Your task to perform on an android device: refresh tabs in the chrome app Image 0: 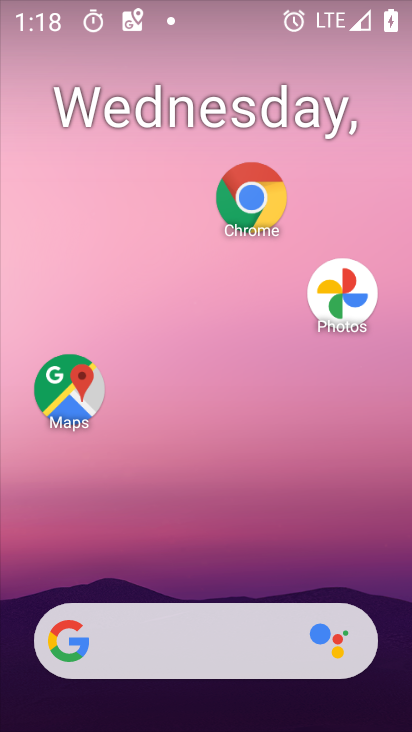
Step 0: drag from (298, 610) to (304, 131)
Your task to perform on an android device: refresh tabs in the chrome app Image 1: 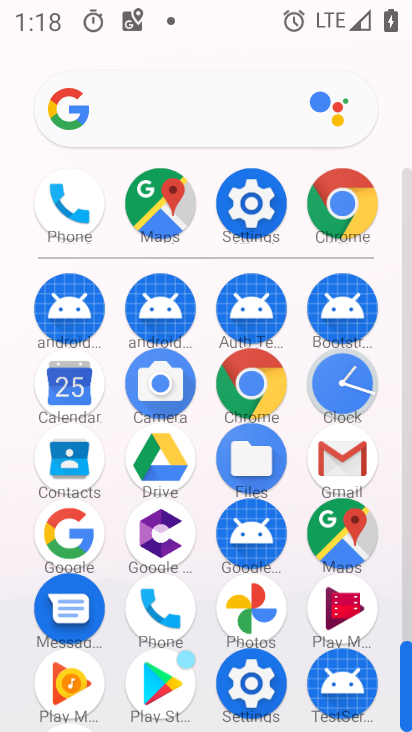
Step 1: click (276, 390)
Your task to perform on an android device: refresh tabs in the chrome app Image 2: 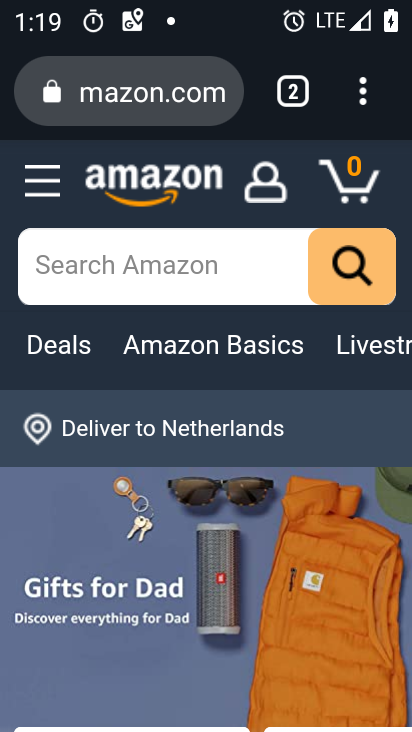
Step 2: click (363, 95)
Your task to perform on an android device: refresh tabs in the chrome app Image 3: 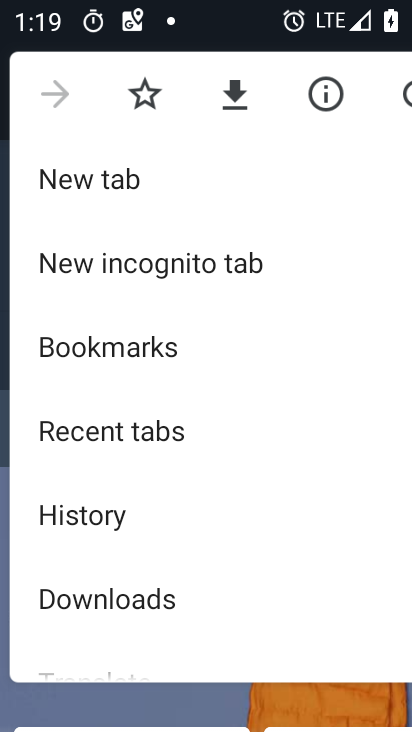
Step 3: click (401, 92)
Your task to perform on an android device: refresh tabs in the chrome app Image 4: 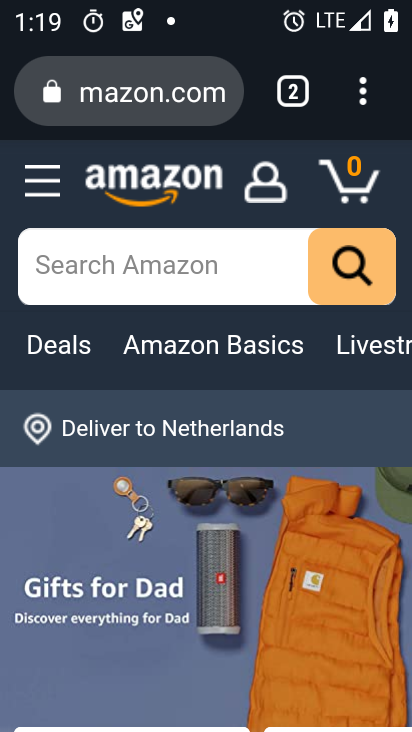
Step 4: task complete